Your task to perform on an android device: Find coffee shops on Maps Image 0: 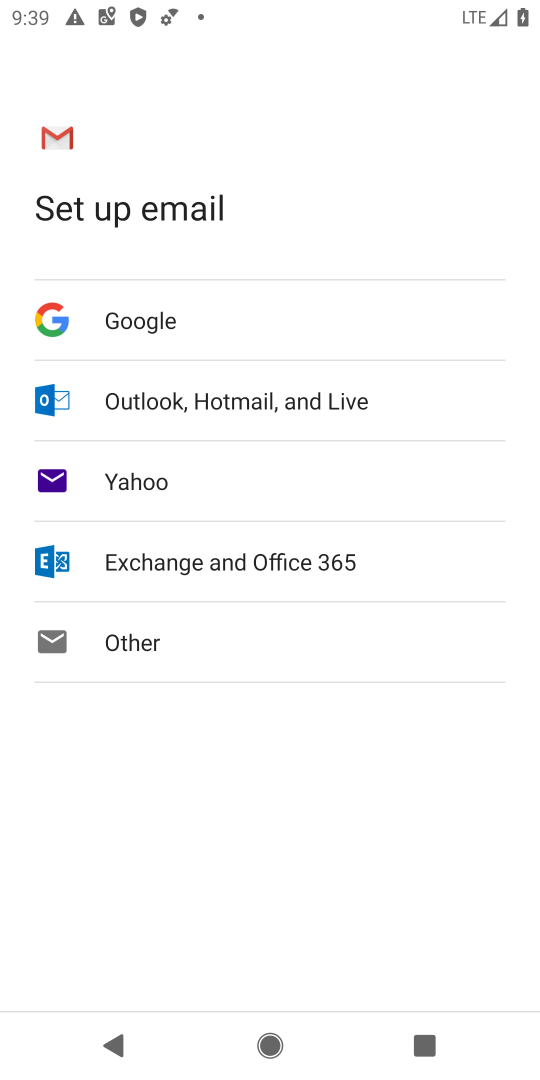
Step 0: press home button
Your task to perform on an android device: Find coffee shops on Maps Image 1: 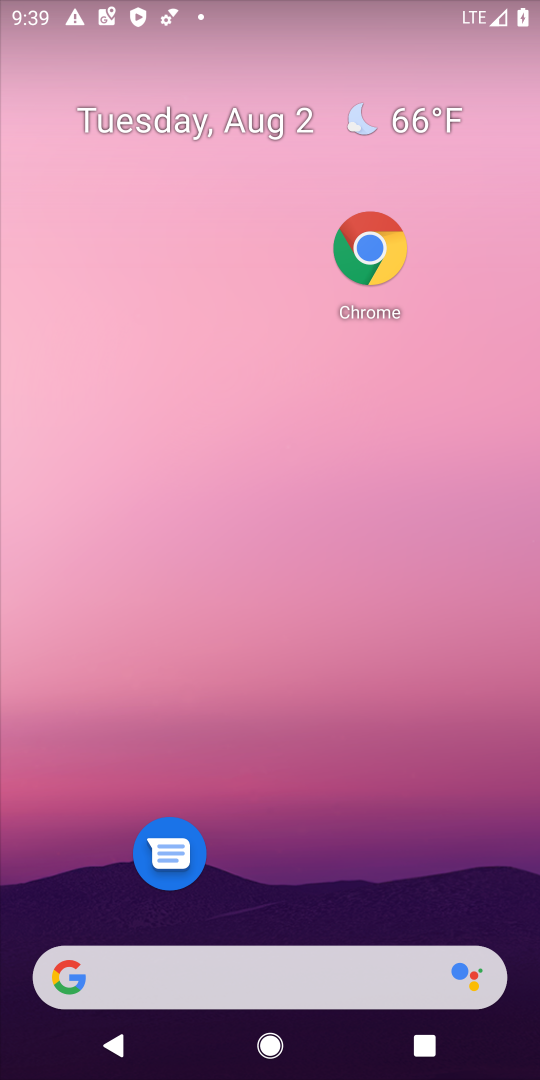
Step 1: drag from (282, 871) to (274, 52)
Your task to perform on an android device: Find coffee shops on Maps Image 2: 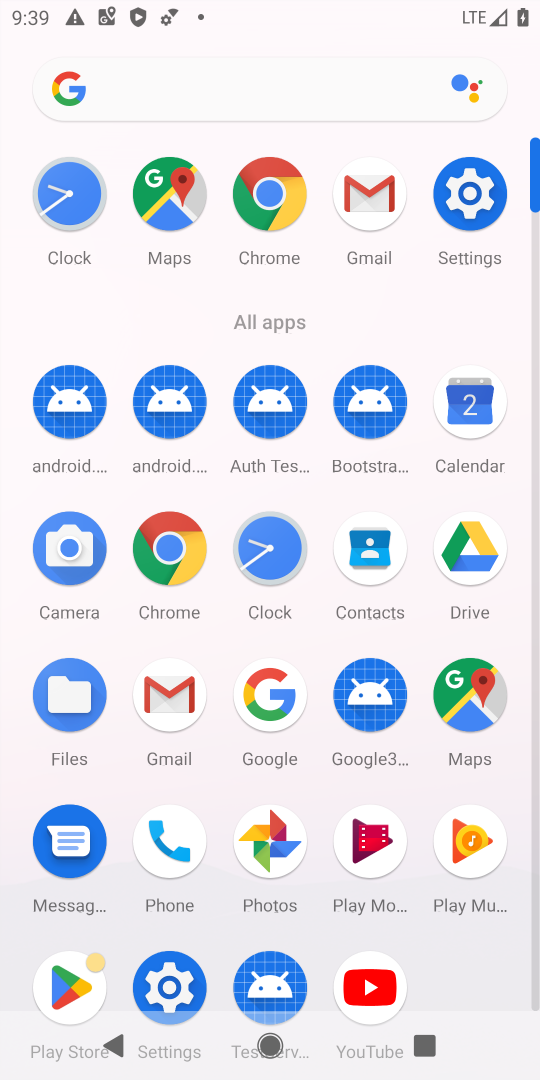
Step 2: click (446, 704)
Your task to perform on an android device: Find coffee shops on Maps Image 3: 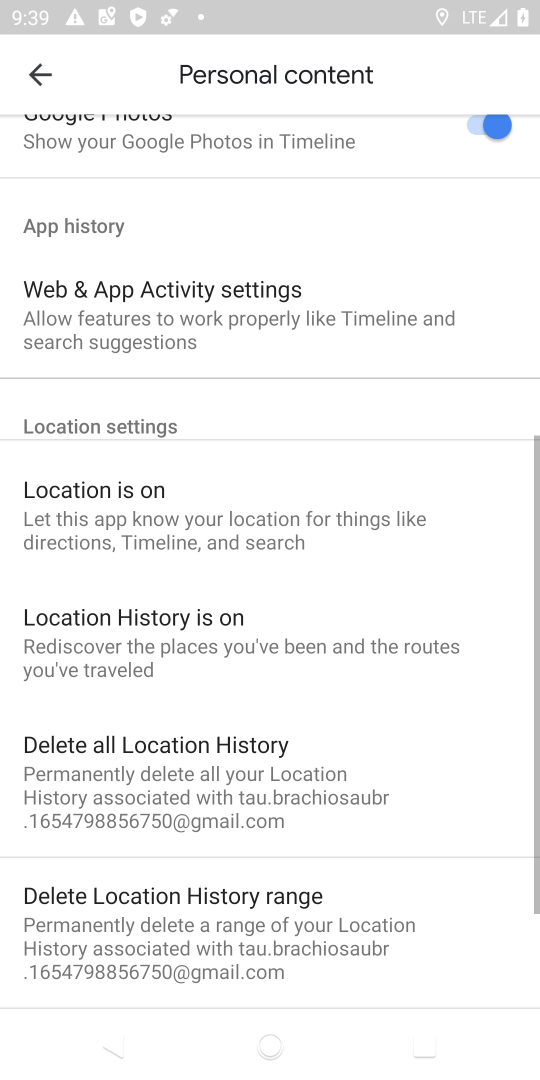
Step 3: click (46, 72)
Your task to perform on an android device: Find coffee shops on Maps Image 4: 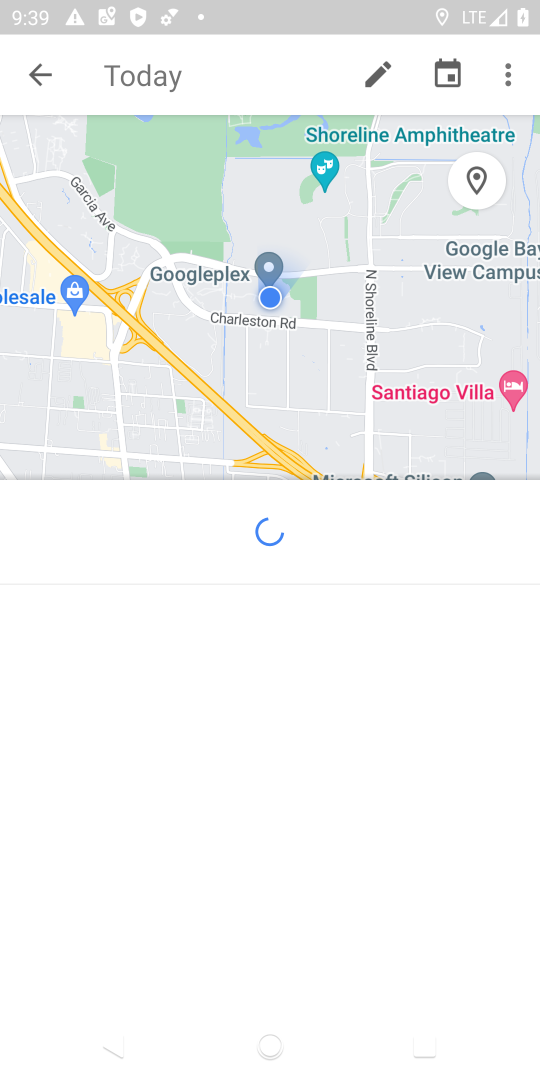
Step 4: click (46, 72)
Your task to perform on an android device: Find coffee shops on Maps Image 5: 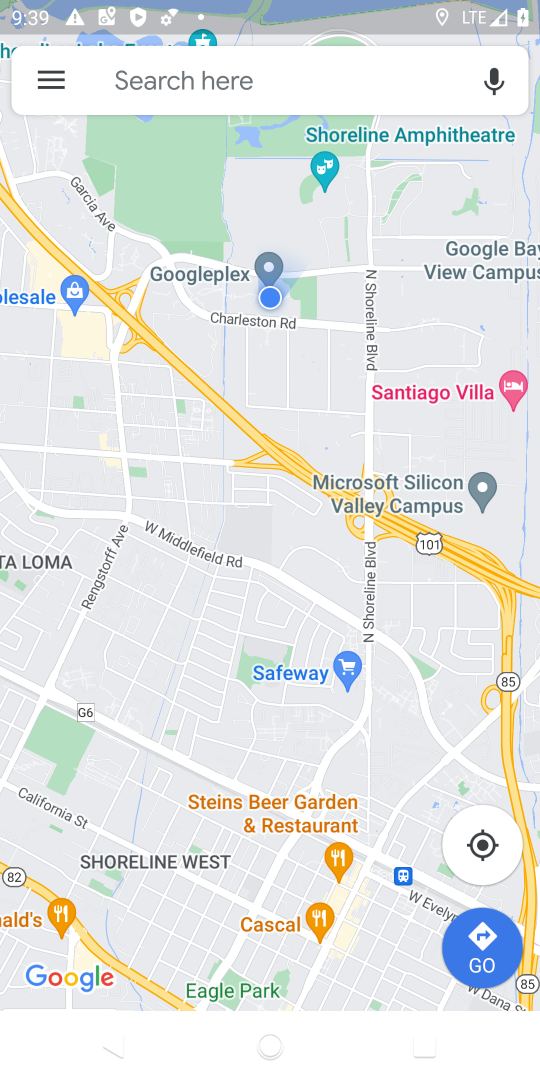
Step 5: click (299, 90)
Your task to perform on an android device: Find coffee shops on Maps Image 6: 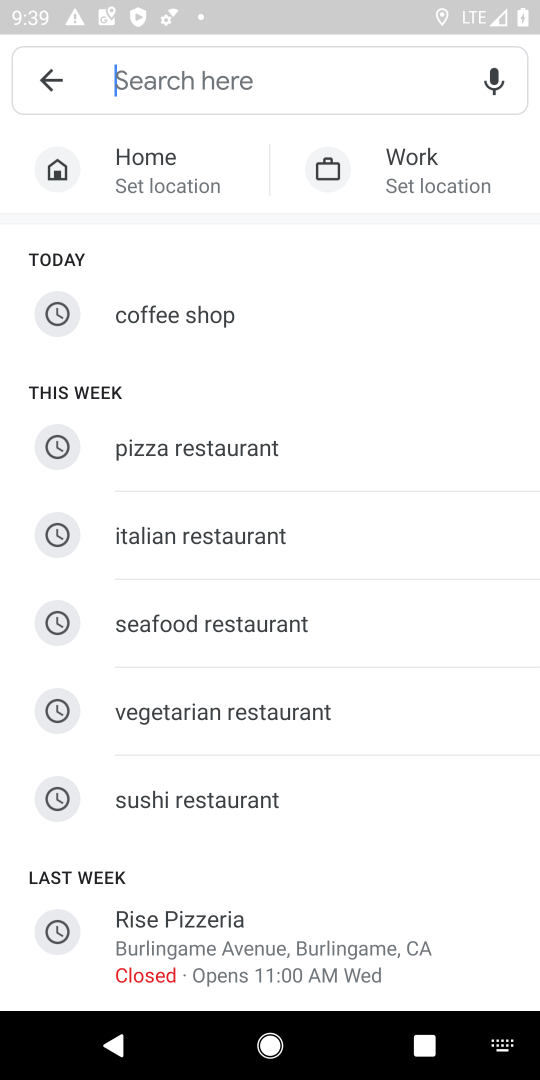
Step 6: click (219, 311)
Your task to perform on an android device: Find coffee shops on Maps Image 7: 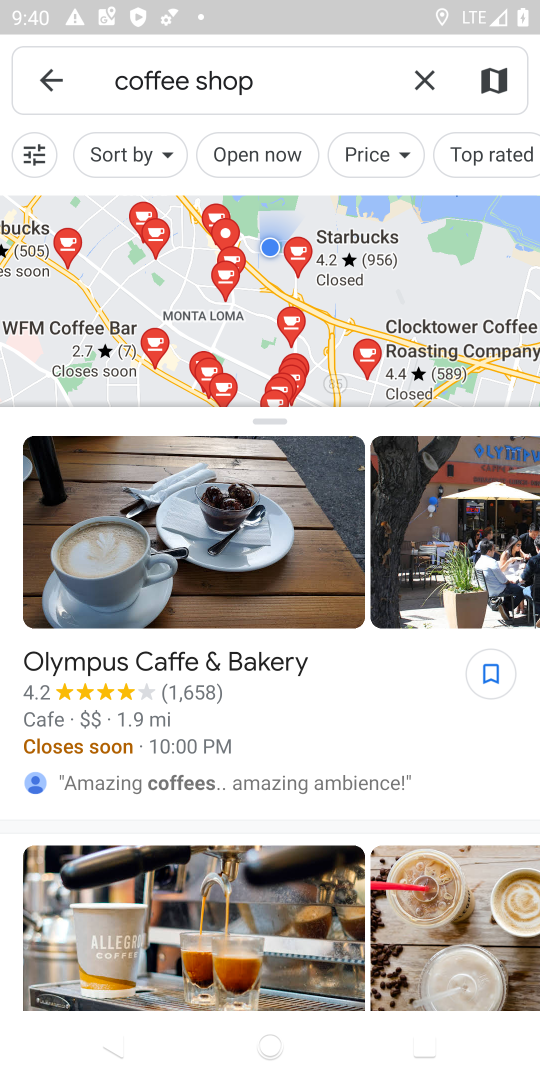
Step 7: task complete